Your task to perform on an android device: turn off airplane mode Image 0: 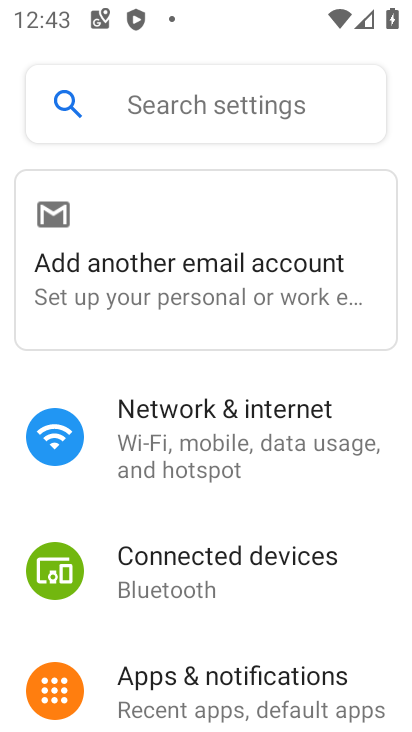
Step 0: drag from (262, 11) to (287, 487)
Your task to perform on an android device: turn off airplane mode Image 1: 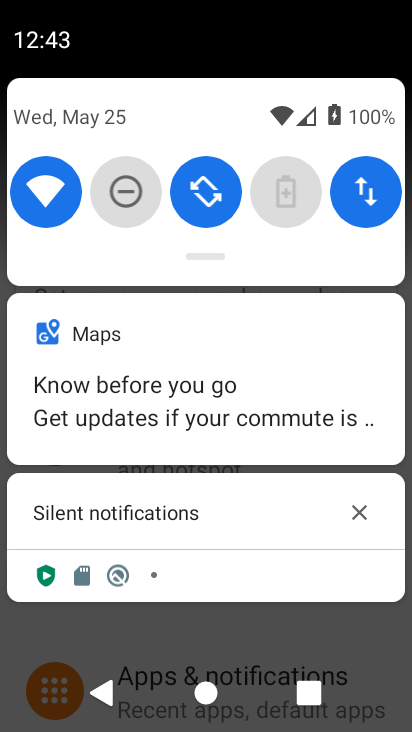
Step 1: task complete